Your task to perform on an android device: Search for vegetarian restaurants on Maps Image 0: 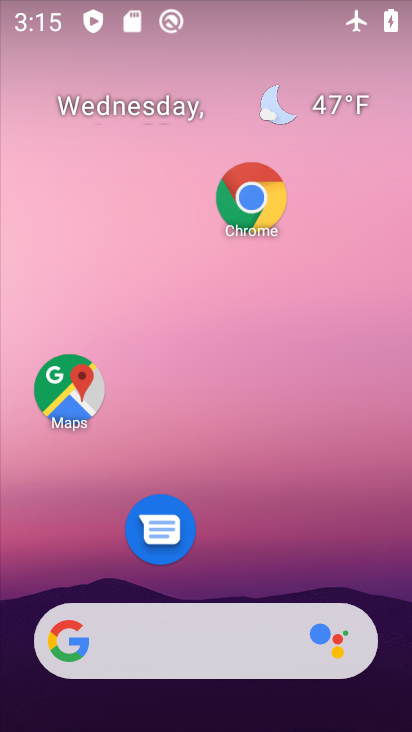
Step 0: click (65, 397)
Your task to perform on an android device: Search for vegetarian restaurants on Maps Image 1: 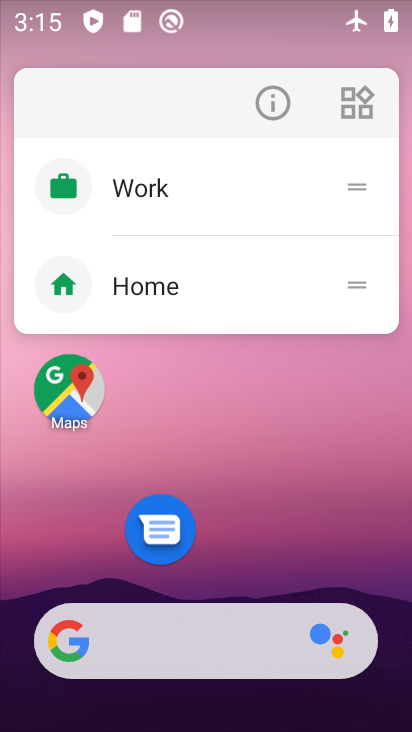
Step 1: click (71, 404)
Your task to perform on an android device: Search for vegetarian restaurants on Maps Image 2: 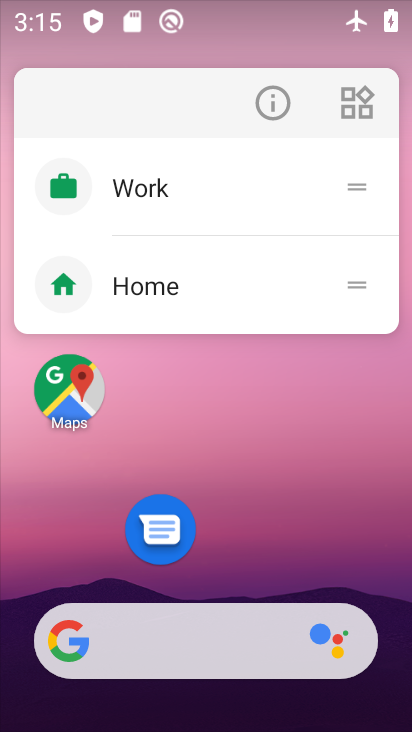
Step 2: click (75, 394)
Your task to perform on an android device: Search for vegetarian restaurants on Maps Image 3: 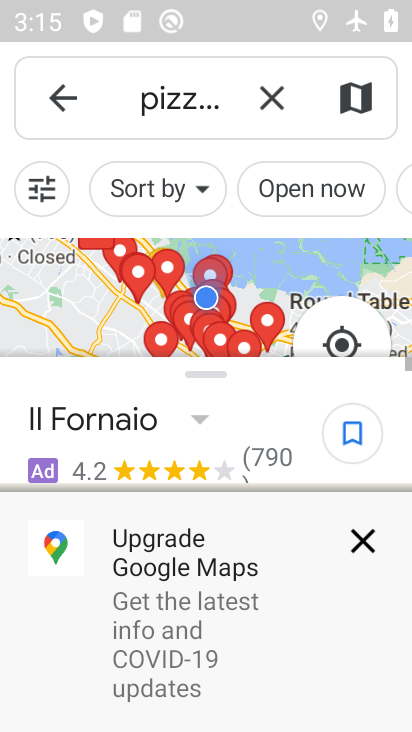
Step 3: click (275, 94)
Your task to perform on an android device: Search for vegetarian restaurants on Maps Image 4: 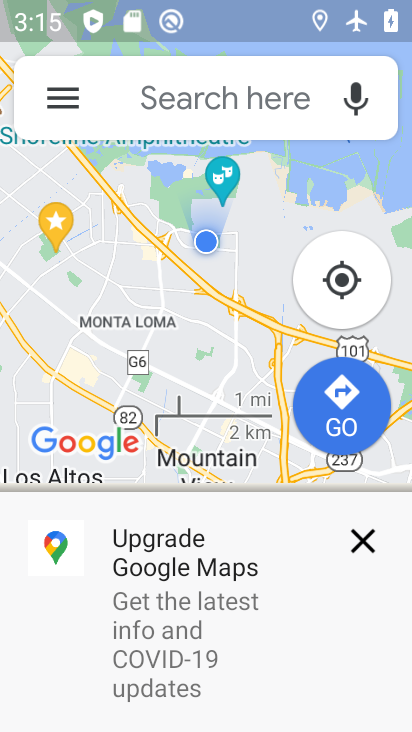
Step 4: click (194, 103)
Your task to perform on an android device: Search for vegetarian restaurants on Maps Image 5: 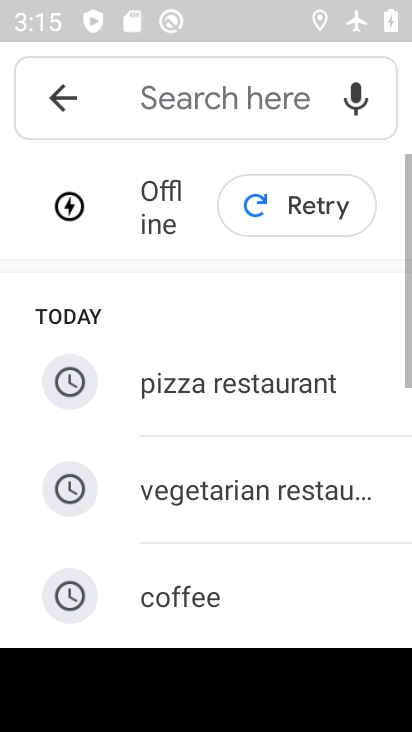
Step 5: click (231, 495)
Your task to perform on an android device: Search for vegetarian restaurants on Maps Image 6: 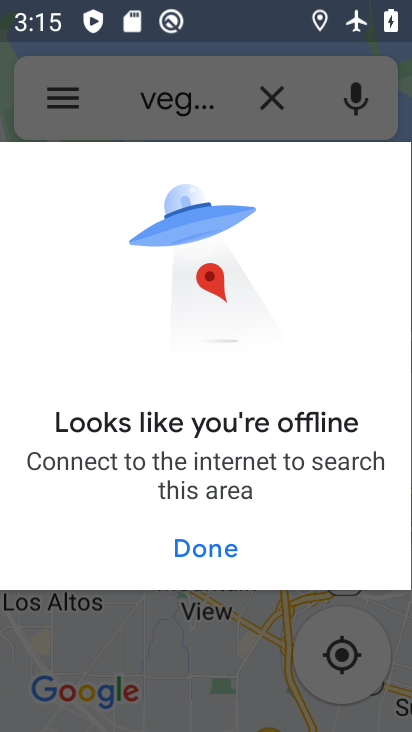
Step 6: task complete